Your task to perform on an android device: delete browsing data in the chrome app Image 0: 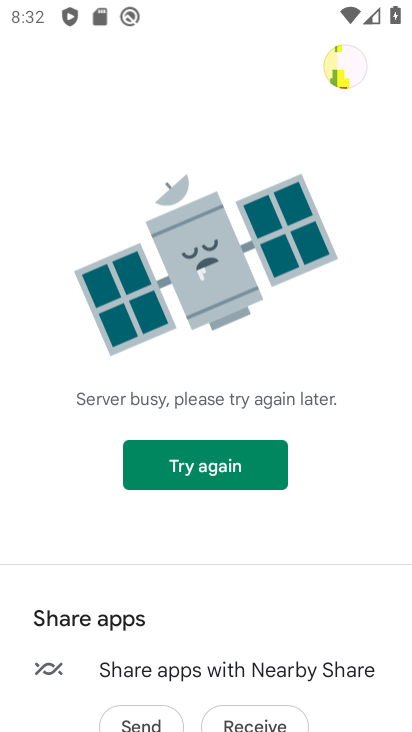
Step 0: press home button
Your task to perform on an android device: delete browsing data in the chrome app Image 1: 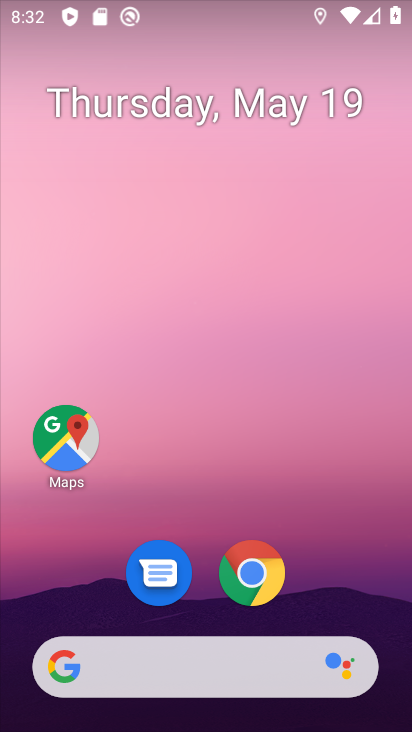
Step 1: click (337, 547)
Your task to perform on an android device: delete browsing data in the chrome app Image 2: 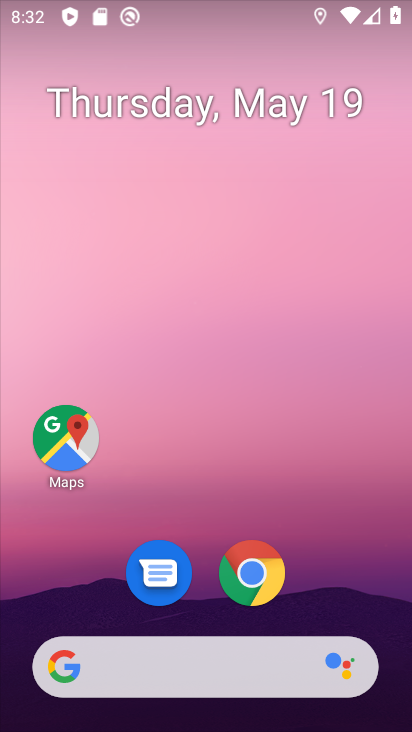
Step 2: click (256, 580)
Your task to perform on an android device: delete browsing data in the chrome app Image 3: 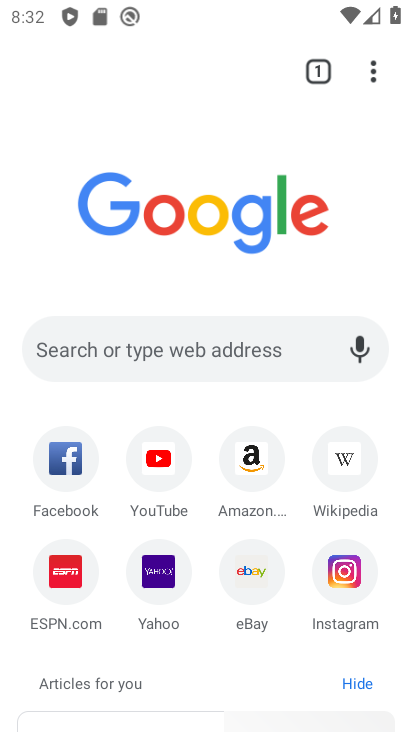
Step 3: click (372, 72)
Your task to perform on an android device: delete browsing data in the chrome app Image 4: 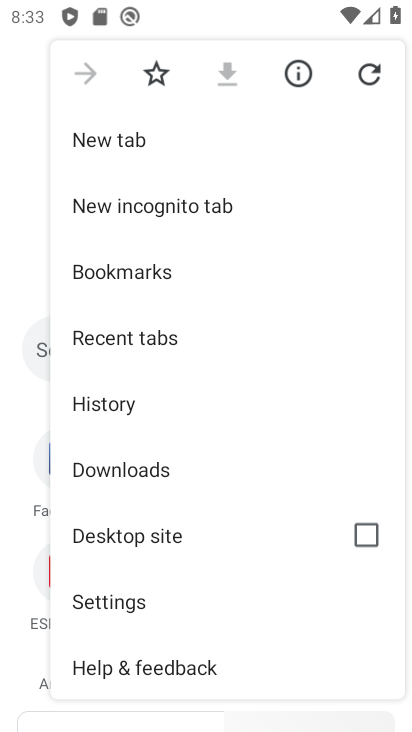
Step 4: click (119, 608)
Your task to perform on an android device: delete browsing data in the chrome app Image 5: 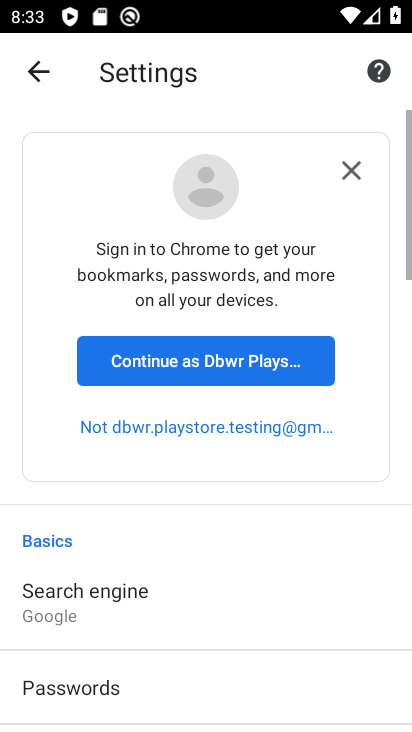
Step 5: drag from (180, 608) to (180, 168)
Your task to perform on an android device: delete browsing data in the chrome app Image 6: 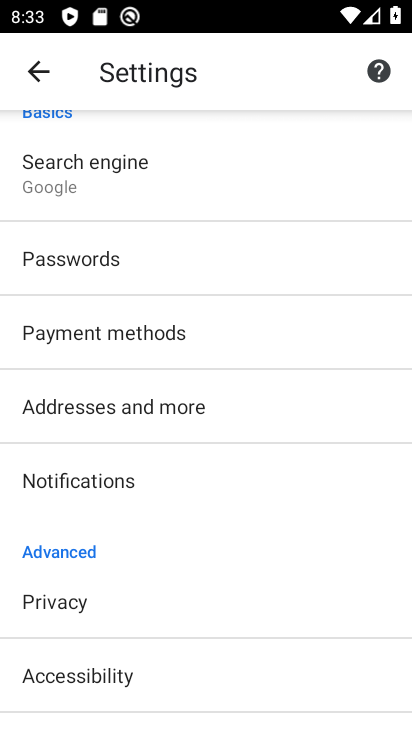
Step 6: drag from (186, 535) to (186, 217)
Your task to perform on an android device: delete browsing data in the chrome app Image 7: 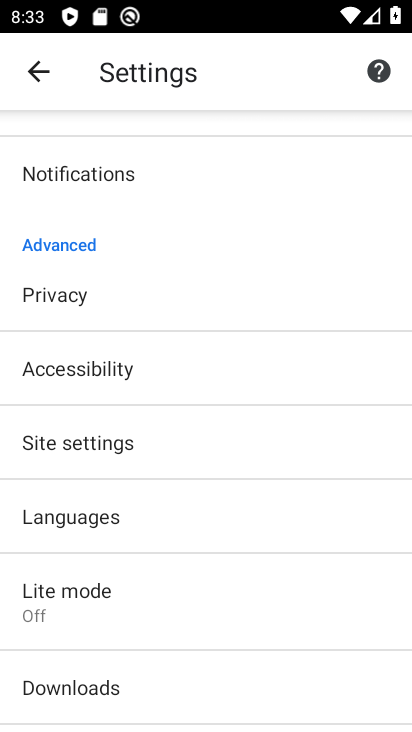
Step 7: click (54, 301)
Your task to perform on an android device: delete browsing data in the chrome app Image 8: 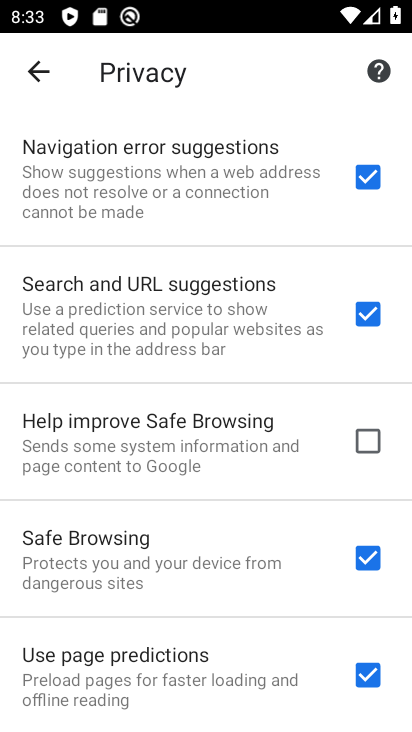
Step 8: drag from (164, 575) to (144, 146)
Your task to perform on an android device: delete browsing data in the chrome app Image 9: 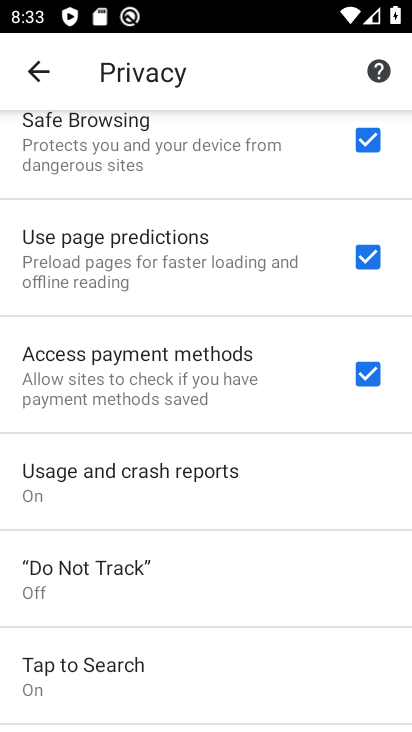
Step 9: drag from (145, 521) to (140, 199)
Your task to perform on an android device: delete browsing data in the chrome app Image 10: 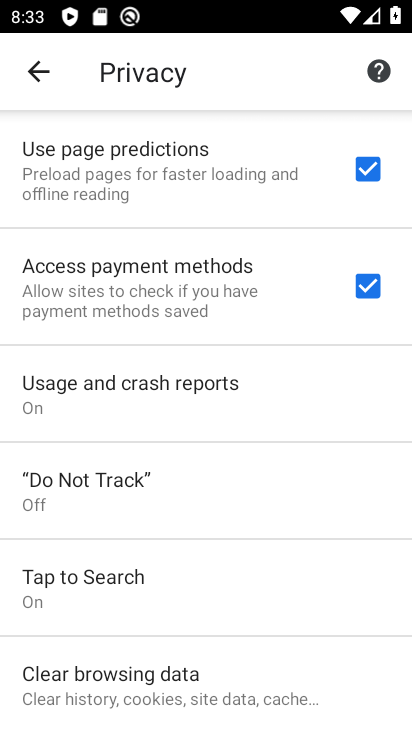
Step 10: click (117, 687)
Your task to perform on an android device: delete browsing data in the chrome app Image 11: 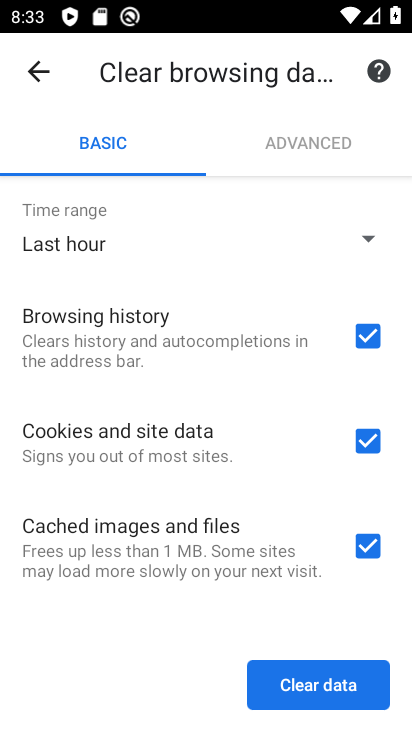
Step 11: click (366, 436)
Your task to perform on an android device: delete browsing data in the chrome app Image 12: 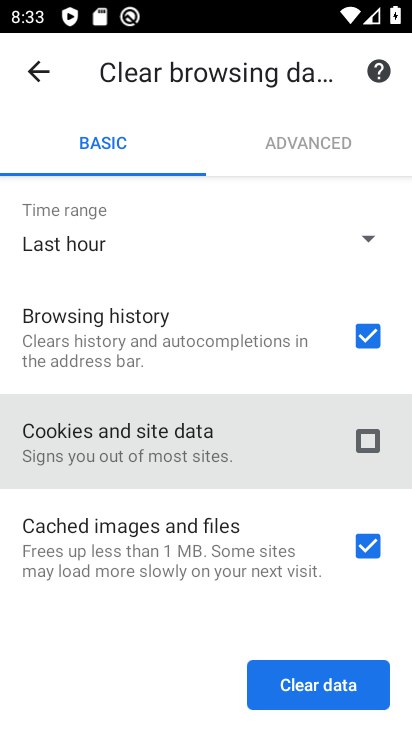
Step 12: click (370, 543)
Your task to perform on an android device: delete browsing data in the chrome app Image 13: 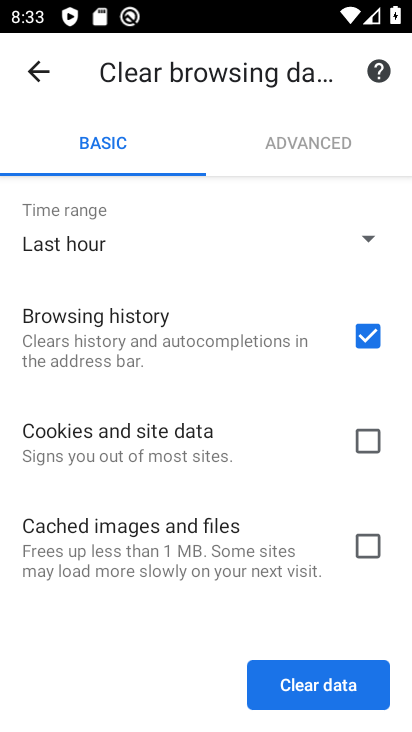
Step 13: click (309, 685)
Your task to perform on an android device: delete browsing data in the chrome app Image 14: 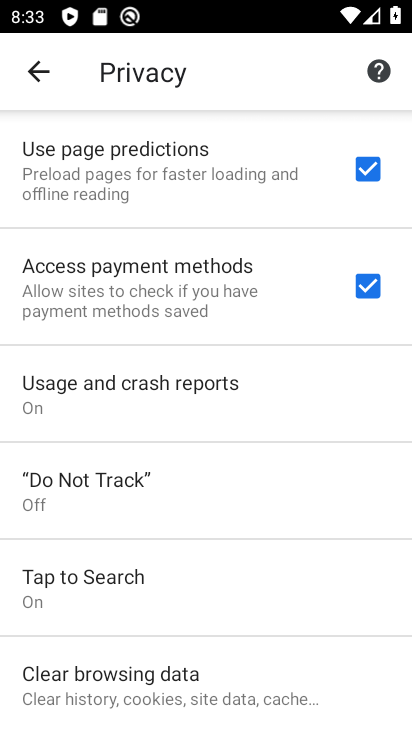
Step 14: task complete